Your task to perform on an android device: find which apps use the phone's location Image 0: 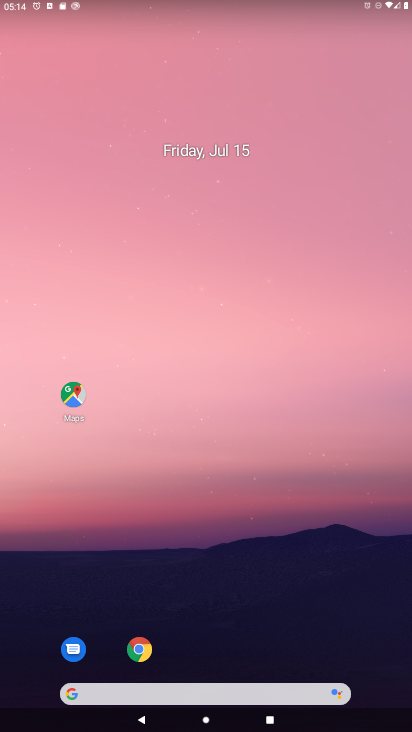
Step 0: drag from (379, 665) to (346, 60)
Your task to perform on an android device: find which apps use the phone's location Image 1: 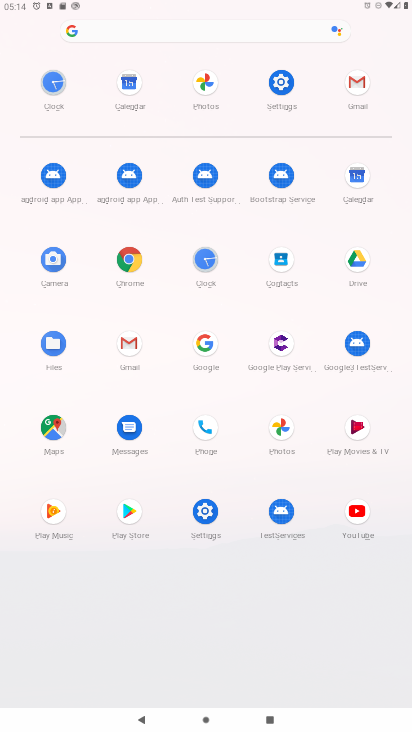
Step 1: click (204, 511)
Your task to perform on an android device: find which apps use the phone's location Image 2: 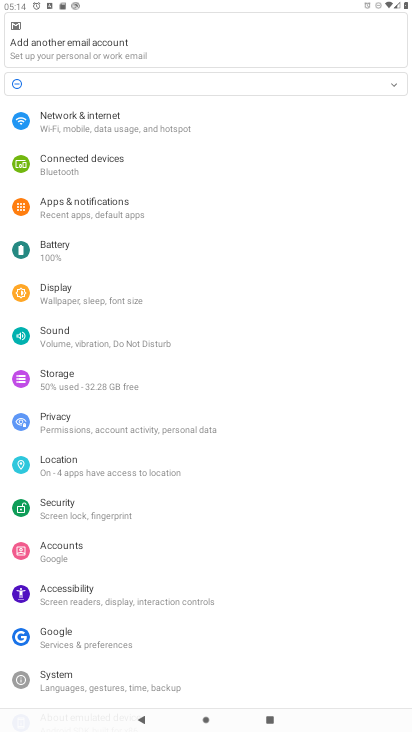
Step 2: click (57, 458)
Your task to perform on an android device: find which apps use the phone's location Image 3: 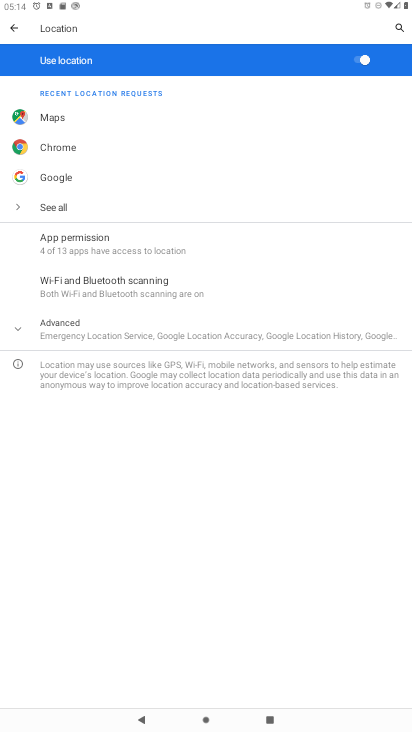
Step 3: click (67, 242)
Your task to perform on an android device: find which apps use the phone's location Image 4: 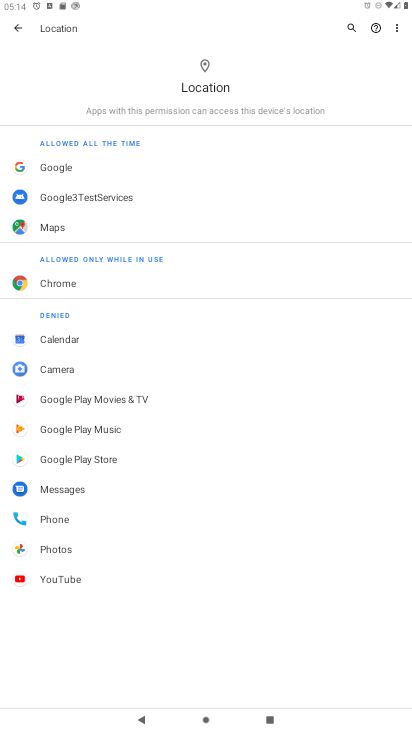
Step 4: click (45, 581)
Your task to perform on an android device: find which apps use the phone's location Image 5: 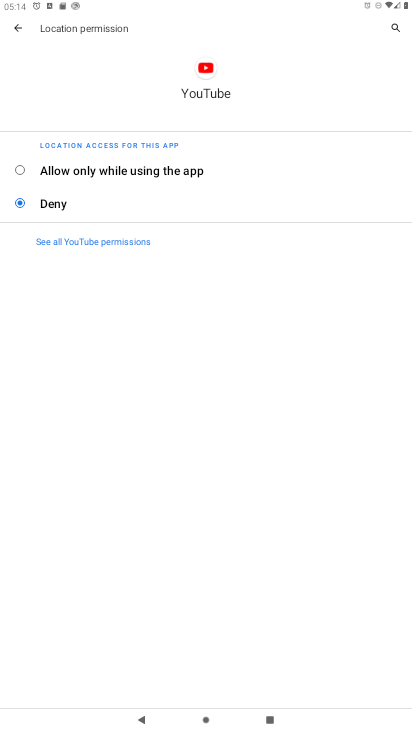
Step 5: task complete